Your task to perform on an android device: read, delete, or share a saved page in the chrome app Image 0: 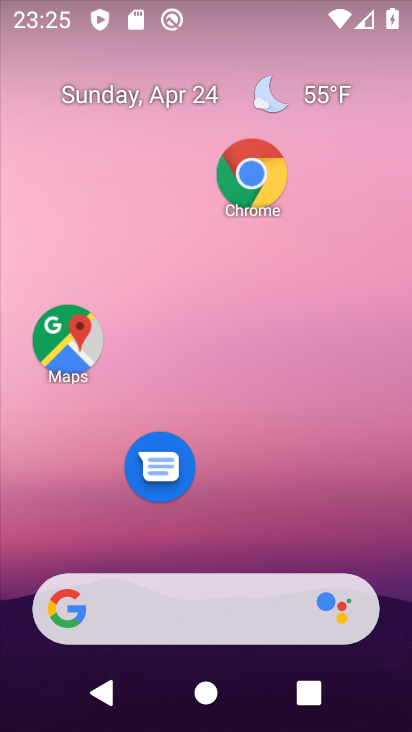
Step 0: drag from (297, 508) to (314, 109)
Your task to perform on an android device: read, delete, or share a saved page in the chrome app Image 1: 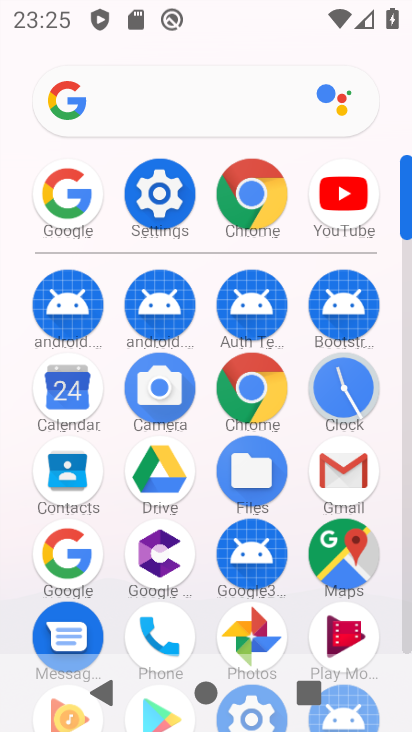
Step 1: click (248, 196)
Your task to perform on an android device: read, delete, or share a saved page in the chrome app Image 2: 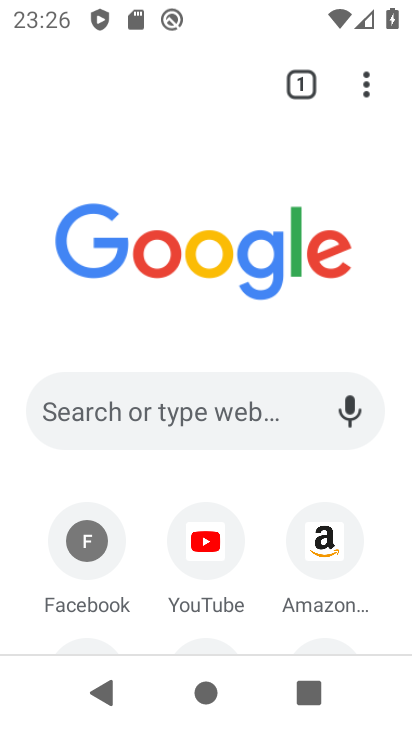
Step 2: click (356, 81)
Your task to perform on an android device: read, delete, or share a saved page in the chrome app Image 3: 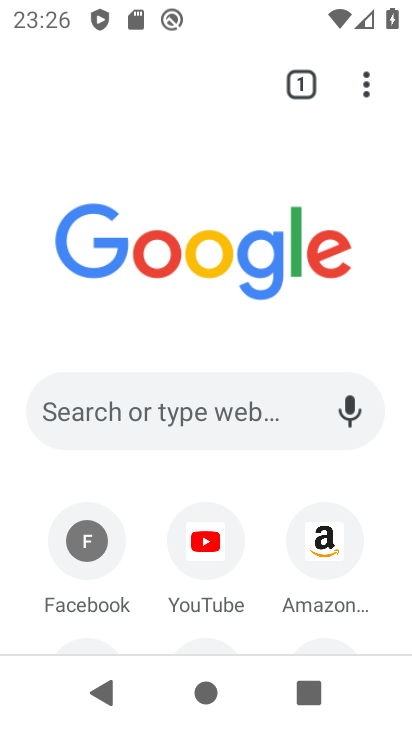
Step 3: click (358, 79)
Your task to perform on an android device: read, delete, or share a saved page in the chrome app Image 4: 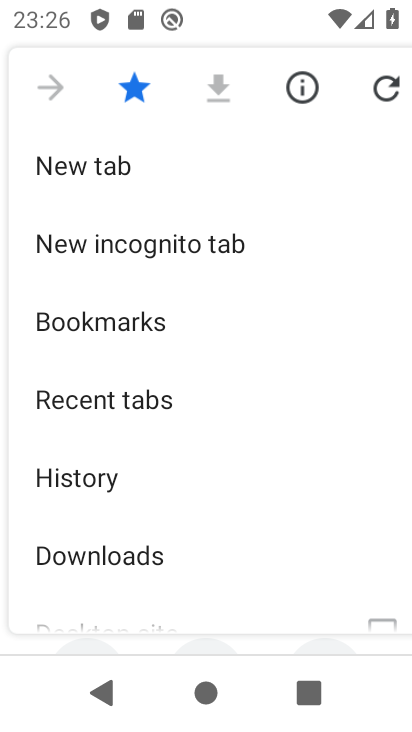
Step 4: drag from (216, 491) to (226, 207)
Your task to perform on an android device: read, delete, or share a saved page in the chrome app Image 5: 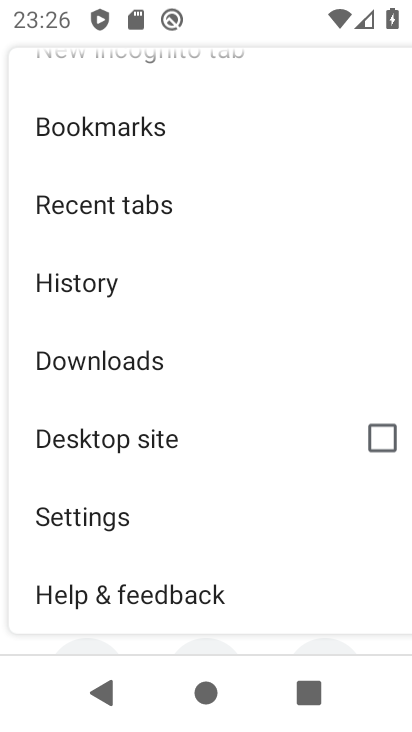
Step 5: click (143, 521)
Your task to perform on an android device: read, delete, or share a saved page in the chrome app Image 6: 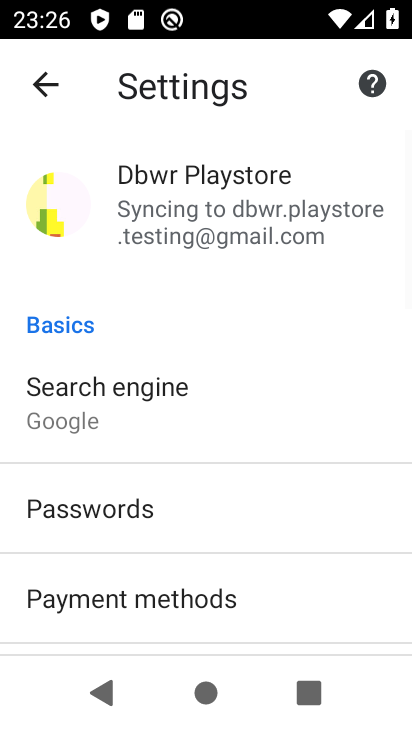
Step 6: press back button
Your task to perform on an android device: read, delete, or share a saved page in the chrome app Image 7: 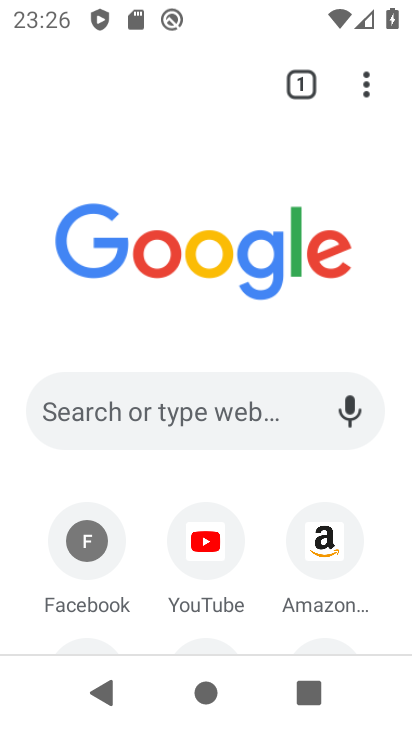
Step 7: click (358, 85)
Your task to perform on an android device: read, delete, or share a saved page in the chrome app Image 8: 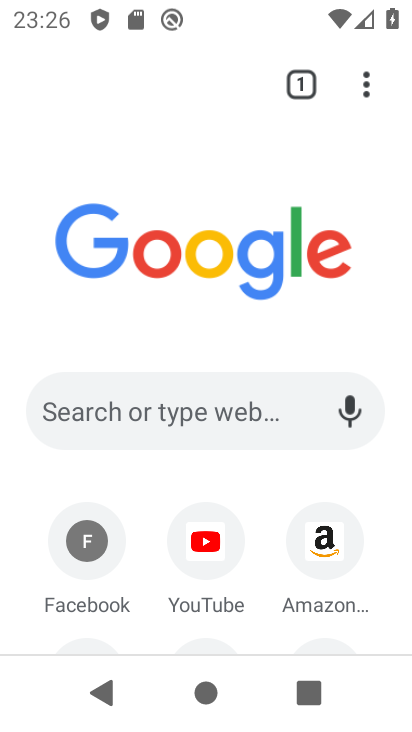
Step 8: click (356, 93)
Your task to perform on an android device: read, delete, or share a saved page in the chrome app Image 9: 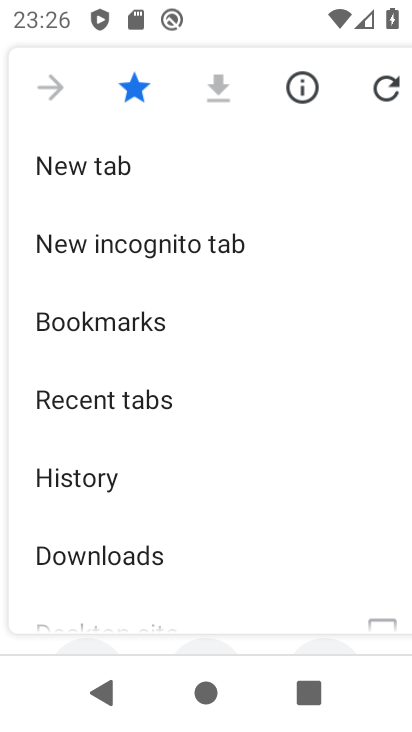
Step 9: click (136, 547)
Your task to perform on an android device: read, delete, or share a saved page in the chrome app Image 10: 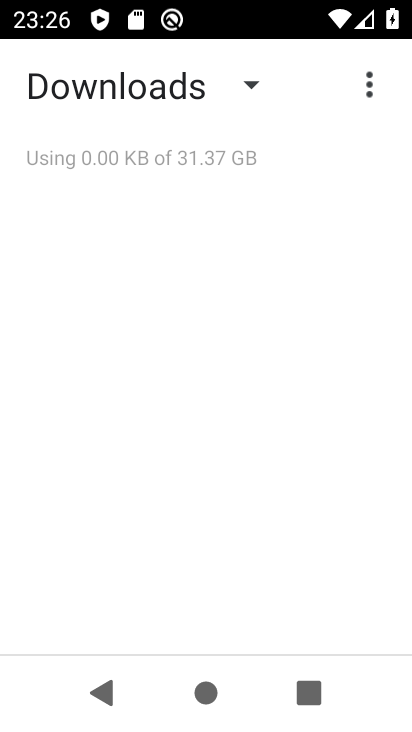
Step 10: task complete